Your task to perform on an android device: add a contact in the contacts app Image 0: 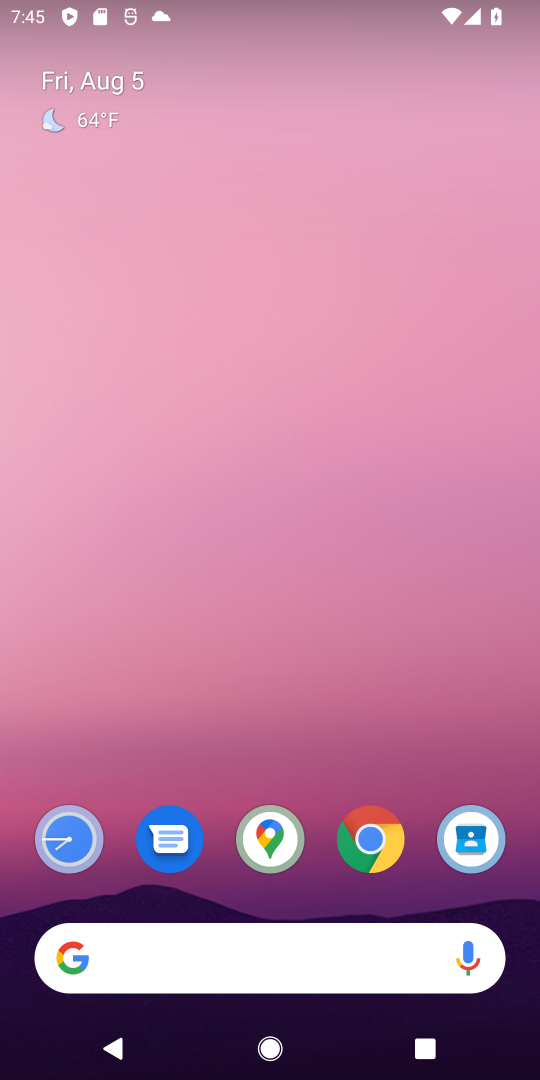
Step 0: drag from (290, 881) to (240, 108)
Your task to perform on an android device: add a contact in the contacts app Image 1: 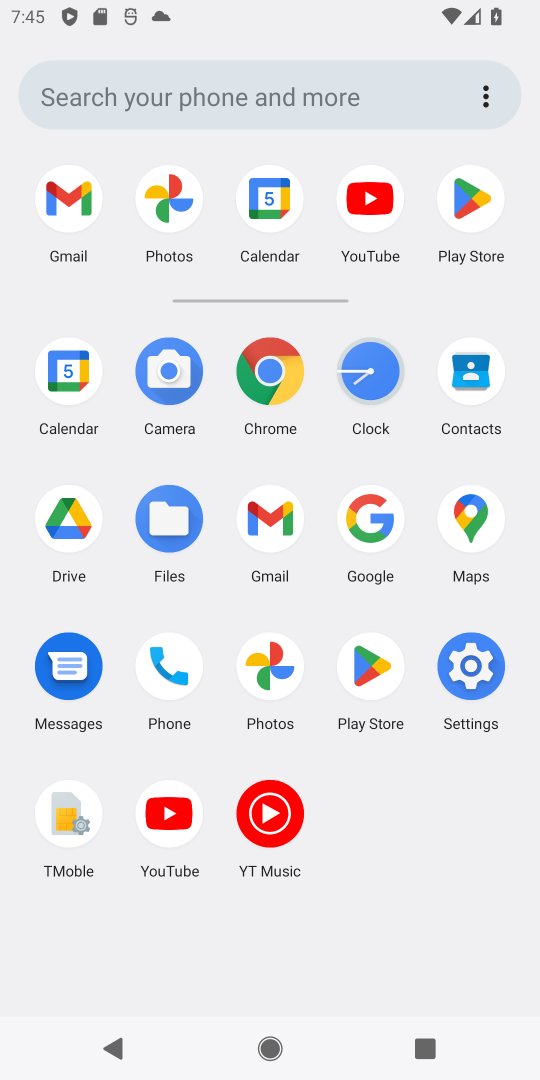
Step 1: click (473, 375)
Your task to perform on an android device: add a contact in the contacts app Image 2: 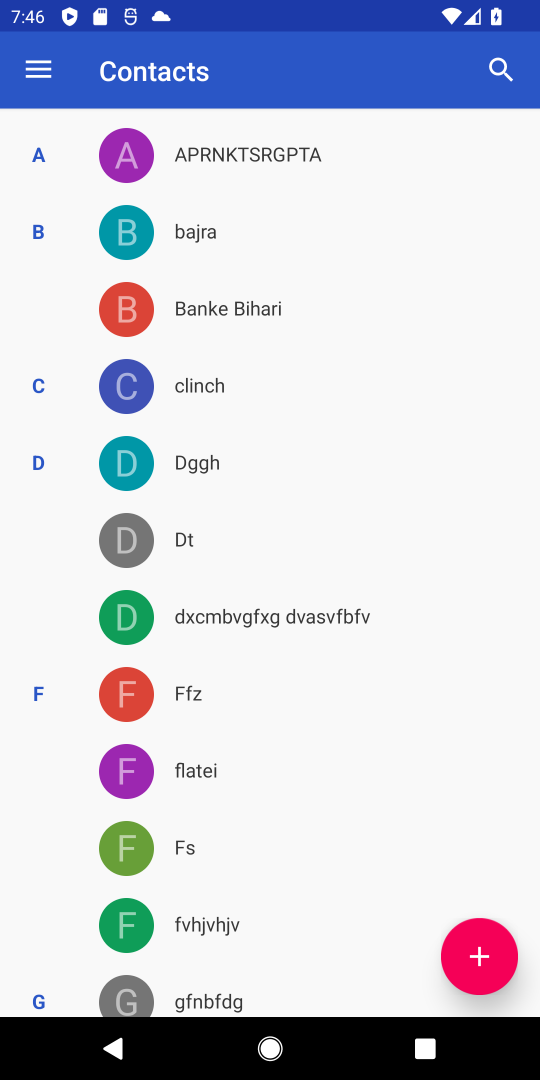
Step 2: click (478, 962)
Your task to perform on an android device: add a contact in the contacts app Image 3: 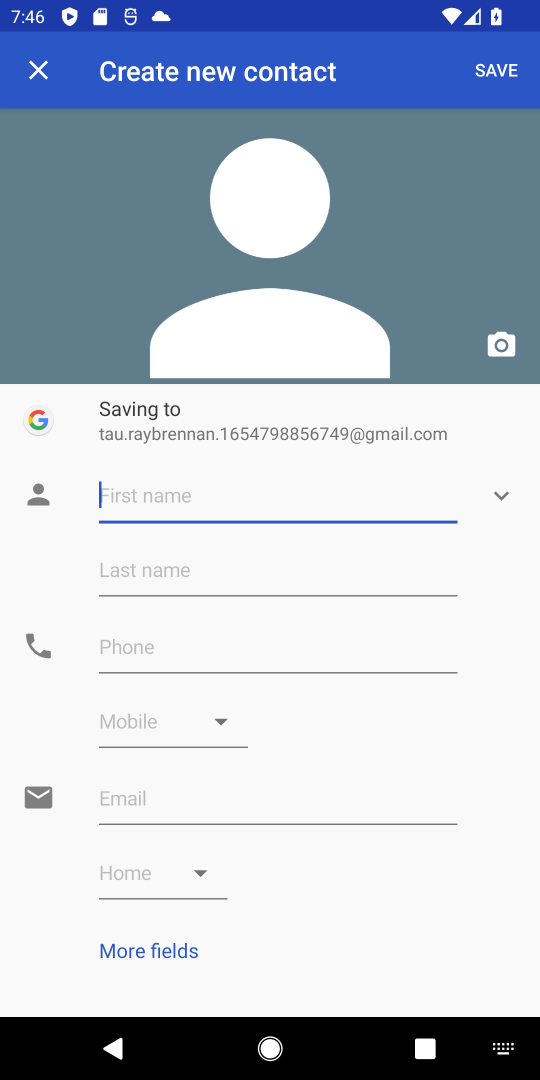
Step 3: type "protcter"
Your task to perform on an android device: add a contact in the contacts app Image 4: 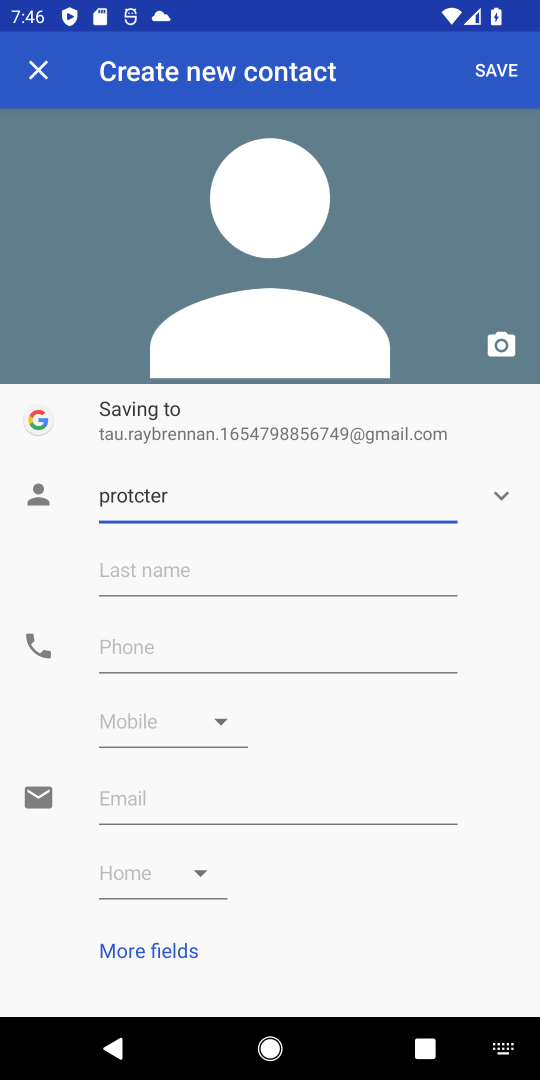
Step 4: click (140, 650)
Your task to perform on an android device: add a contact in the contacts app Image 5: 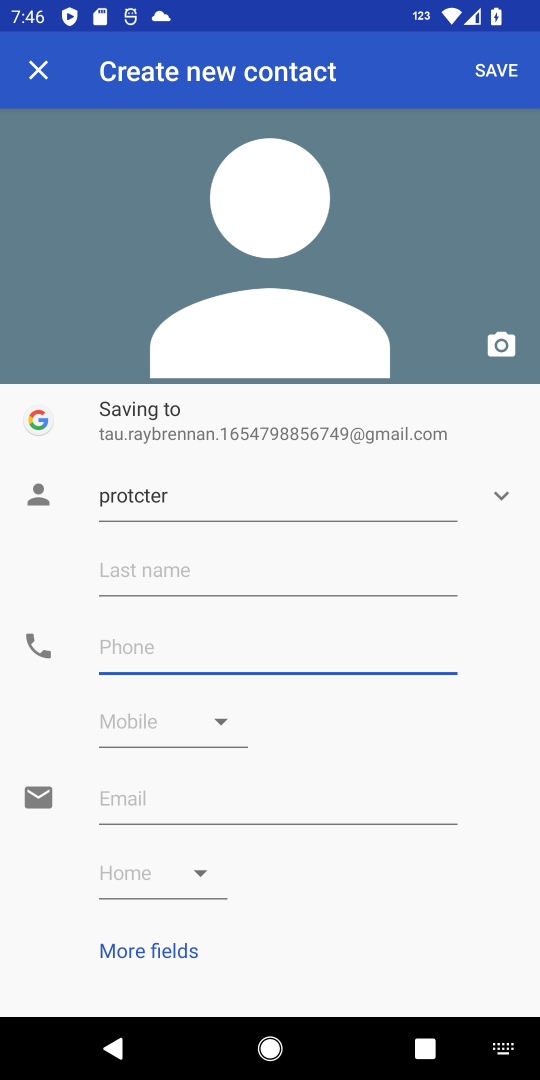
Step 5: type "35363635"
Your task to perform on an android device: add a contact in the contacts app Image 6: 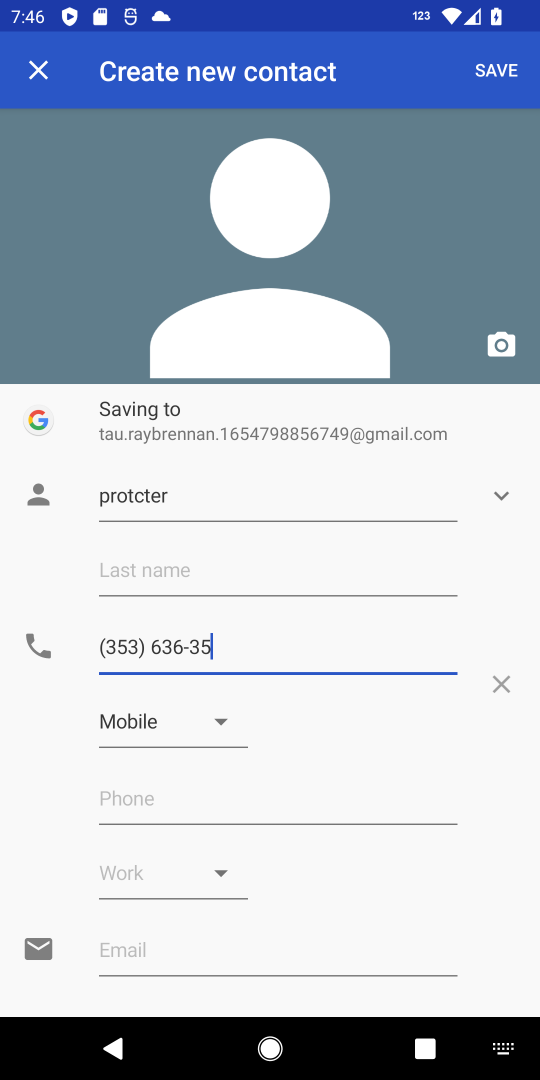
Step 6: type ""
Your task to perform on an android device: add a contact in the contacts app Image 7: 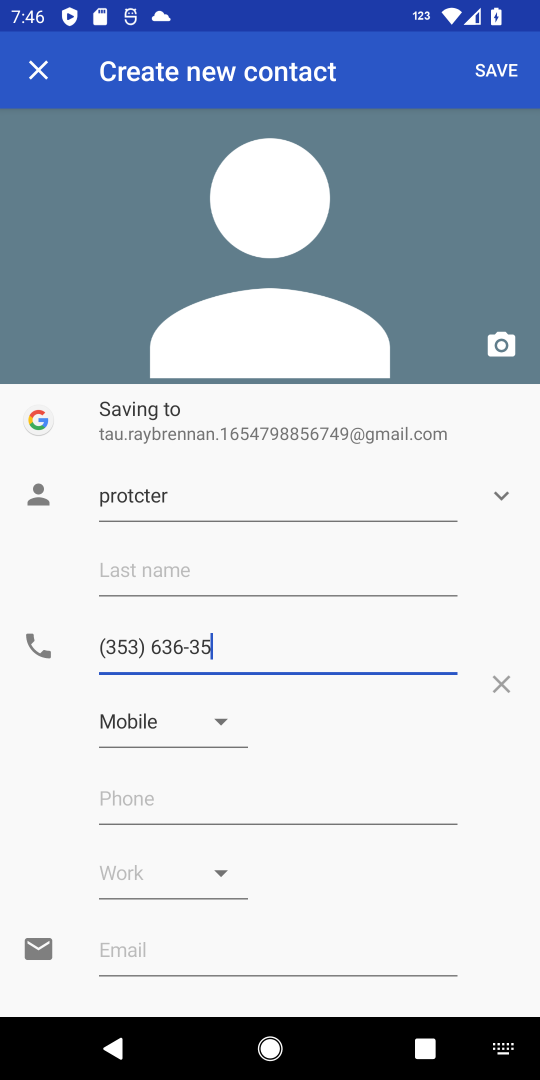
Step 7: click (498, 68)
Your task to perform on an android device: add a contact in the contacts app Image 8: 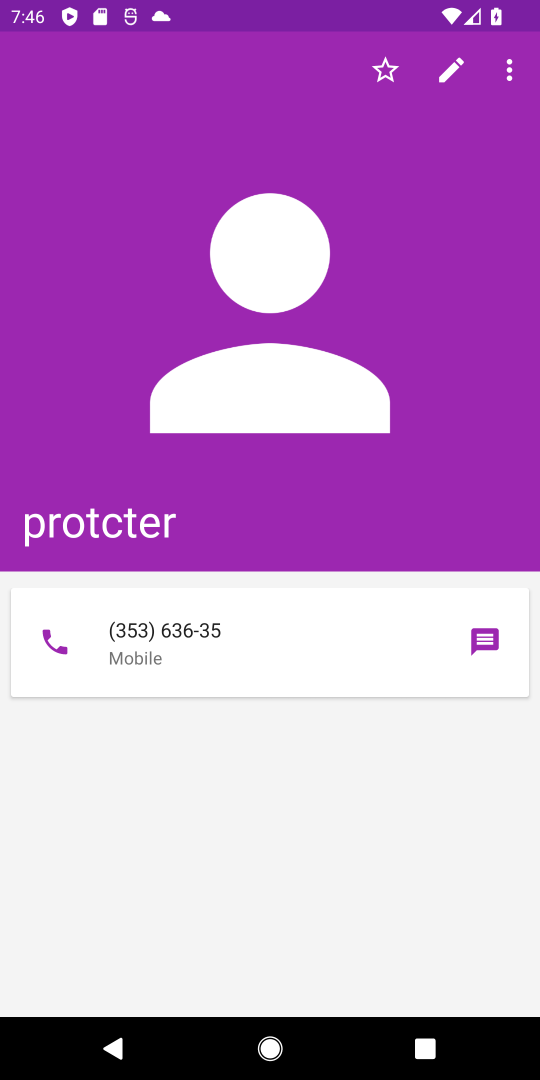
Step 8: task complete